Your task to perform on an android device: Search for Italian restaurants on Maps Image 0: 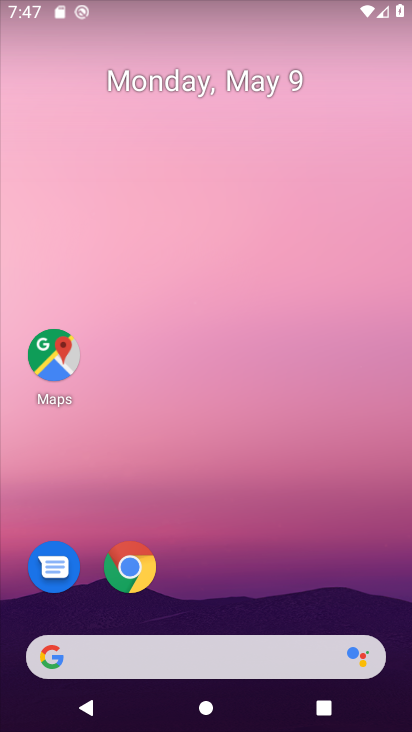
Step 0: click (45, 358)
Your task to perform on an android device: Search for Italian restaurants on Maps Image 1: 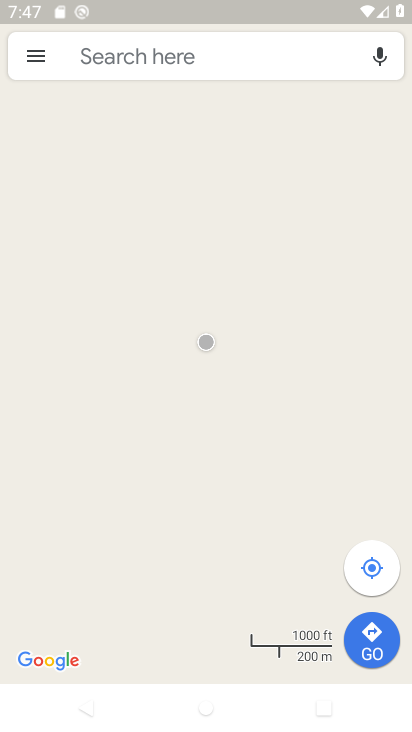
Step 1: click (211, 64)
Your task to perform on an android device: Search for Italian restaurants on Maps Image 2: 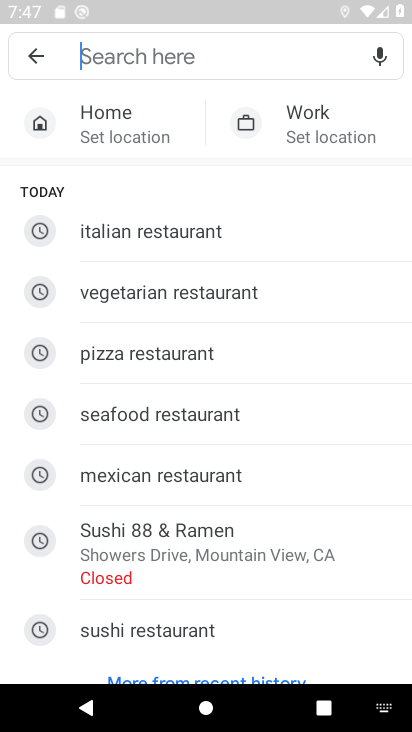
Step 2: type "italian restaurants"
Your task to perform on an android device: Search for Italian restaurants on Maps Image 3: 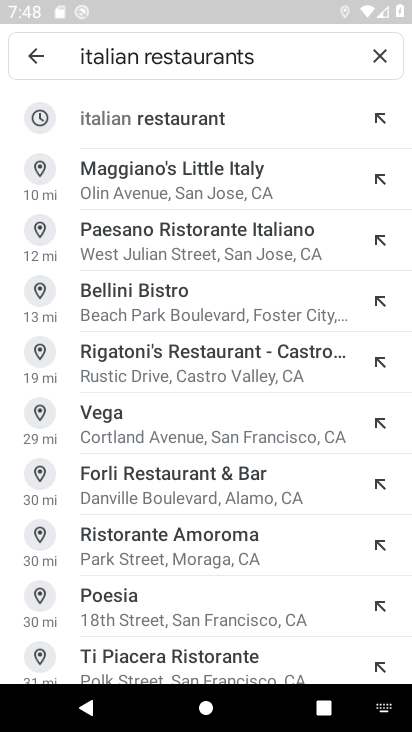
Step 3: click (164, 102)
Your task to perform on an android device: Search for Italian restaurants on Maps Image 4: 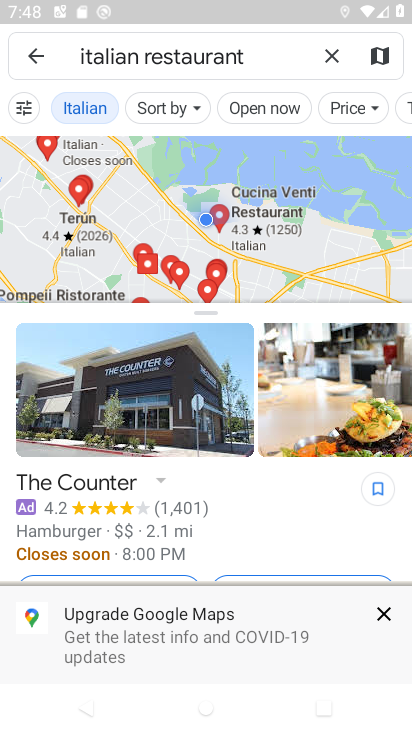
Step 4: task complete